Your task to perform on an android device: change text size in settings app Image 0: 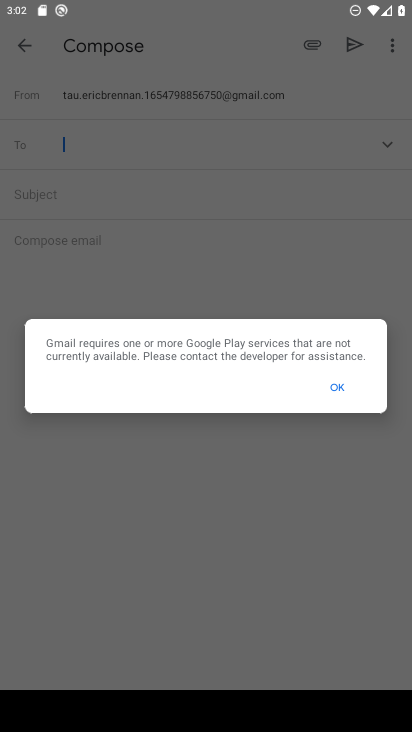
Step 0: press home button
Your task to perform on an android device: change text size in settings app Image 1: 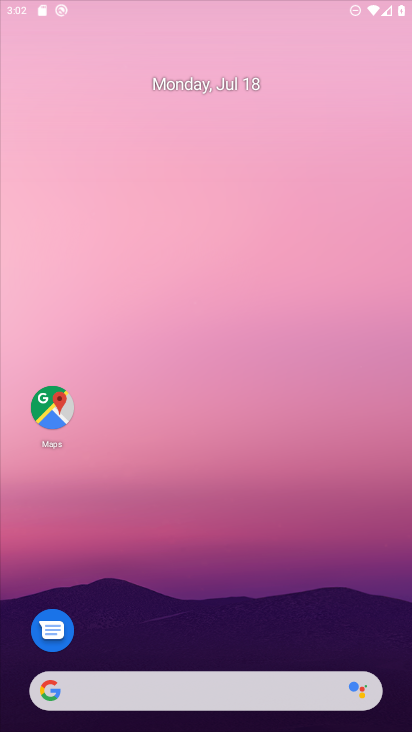
Step 1: drag from (331, 652) to (411, 9)
Your task to perform on an android device: change text size in settings app Image 2: 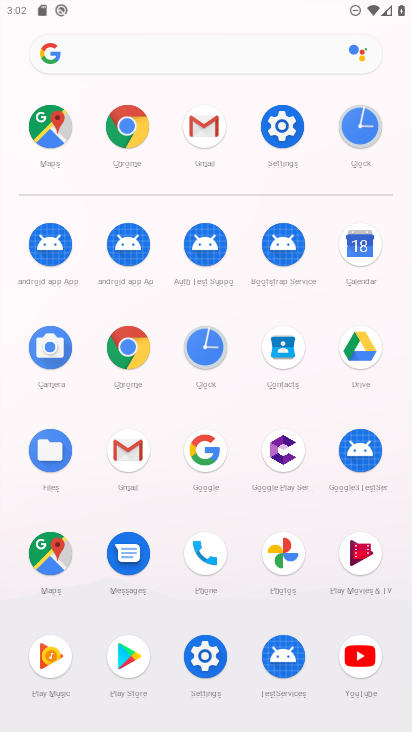
Step 2: click (293, 132)
Your task to perform on an android device: change text size in settings app Image 3: 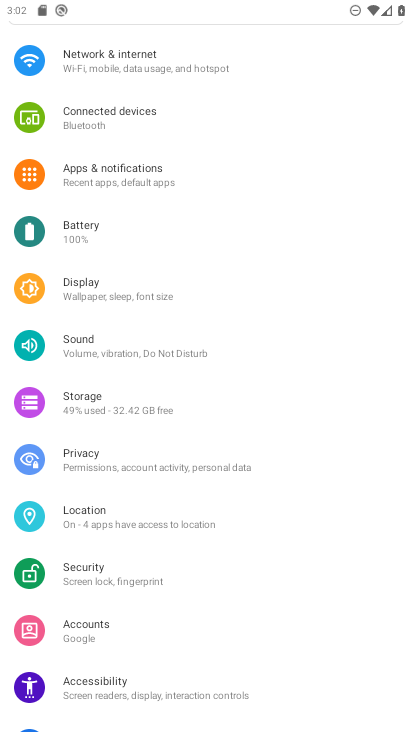
Step 3: drag from (217, 684) to (301, 137)
Your task to perform on an android device: change text size in settings app Image 4: 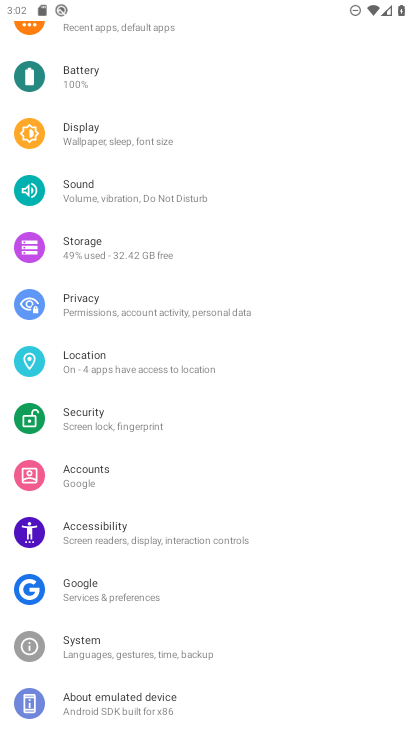
Step 4: click (147, 530)
Your task to perform on an android device: change text size in settings app Image 5: 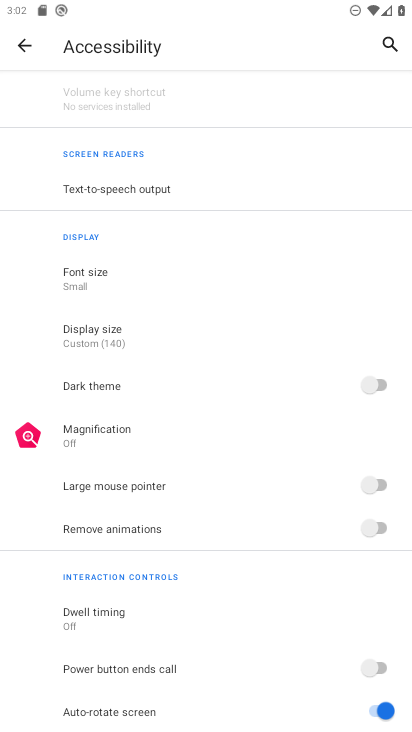
Step 5: click (130, 282)
Your task to perform on an android device: change text size in settings app Image 6: 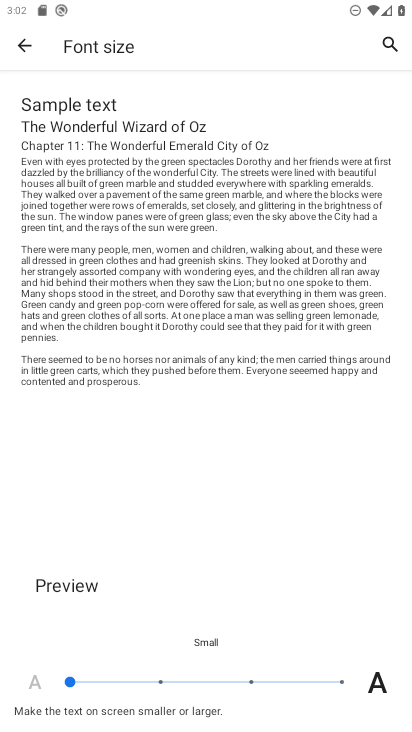
Step 6: click (151, 680)
Your task to perform on an android device: change text size in settings app Image 7: 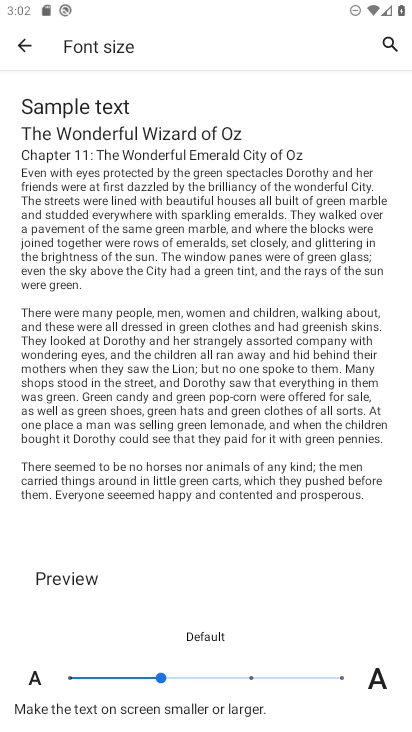
Step 7: click (255, 679)
Your task to perform on an android device: change text size in settings app Image 8: 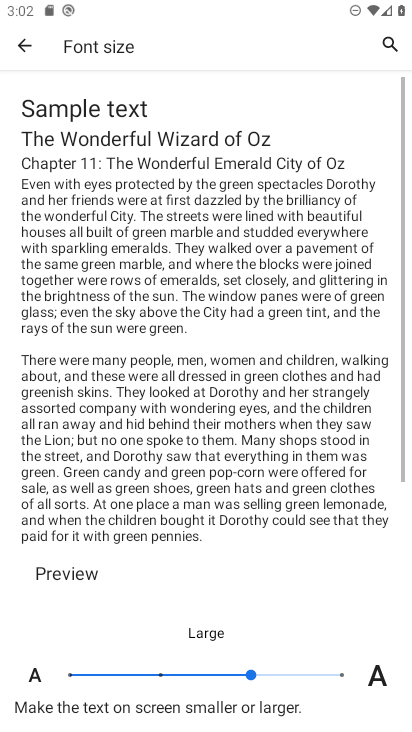
Step 8: task complete